Your task to perform on an android device: stop showing notifications on the lock screen Image 0: 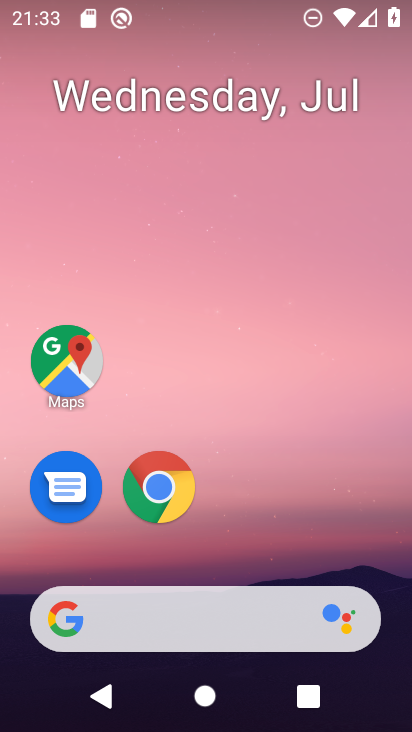
Step 0: drag from (364, 537) to (373, 131)
Your task to perform on an android device: stop showing notifications on the lock screen Image 1: 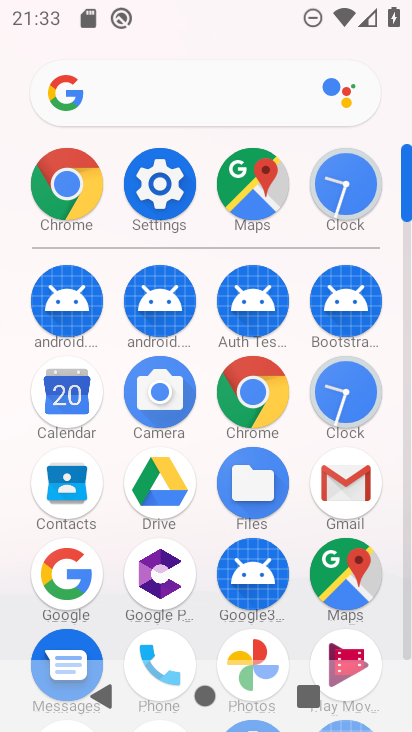
Step 1: click (164, 196)
Your task to perform on an android device: stop showing notifications on the lock screen Image 2: 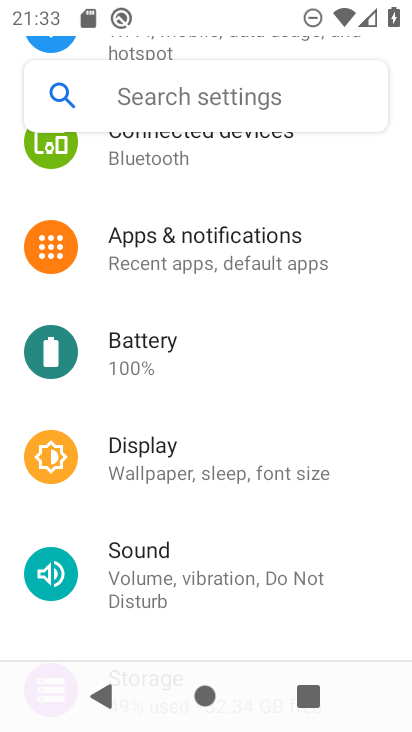
Step 2: drag from (339, 202) to (356, 291)
Your task to perform on an android device: stop showing notifications on the lock screen Image 3: 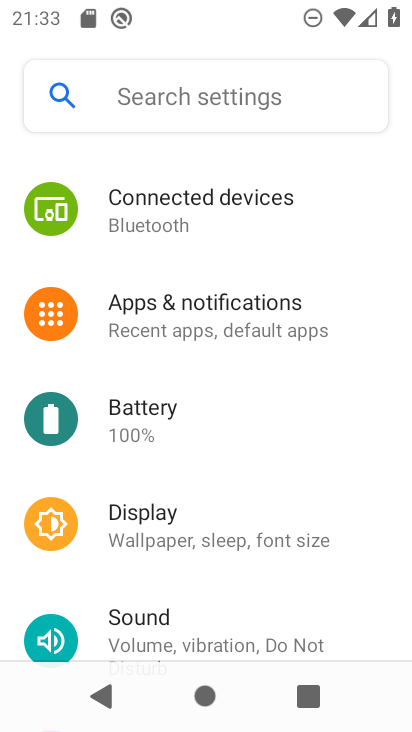
Step 3: drag from (354, 197) to (355, 283)
Your task to perform on an android device: stop showing notifications on the lock screen Image 4: 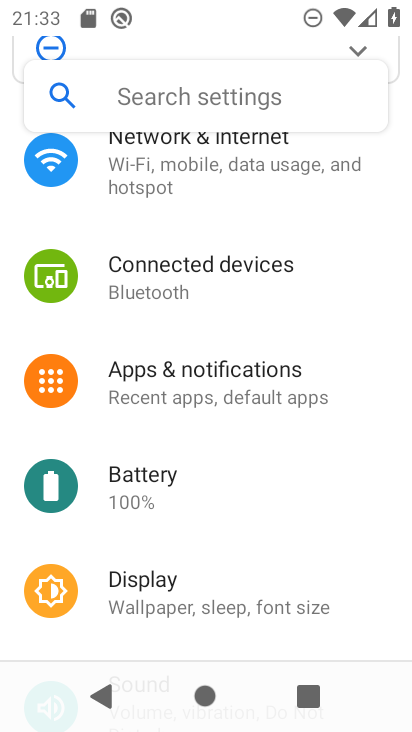
Step 4: drag from (368, 202) to (364, 283)
Your task to perform on an android device: stop showing notifications on the lock screen Image 5: 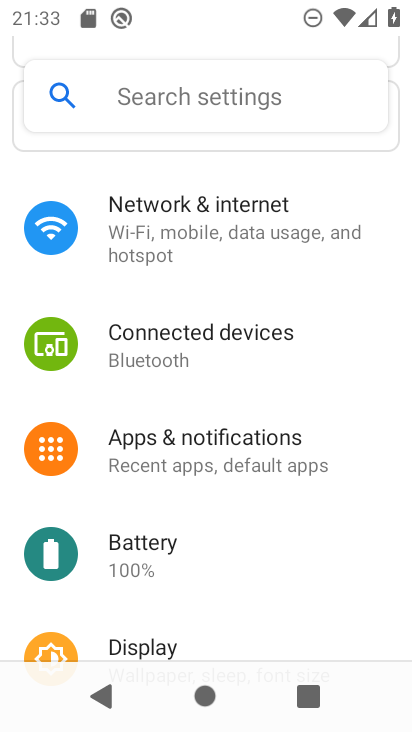
Step 5: drag from (372, 190) to (369, 316)
Your task to perform on an android device: stop showing notifications on the lock screen Image 6: 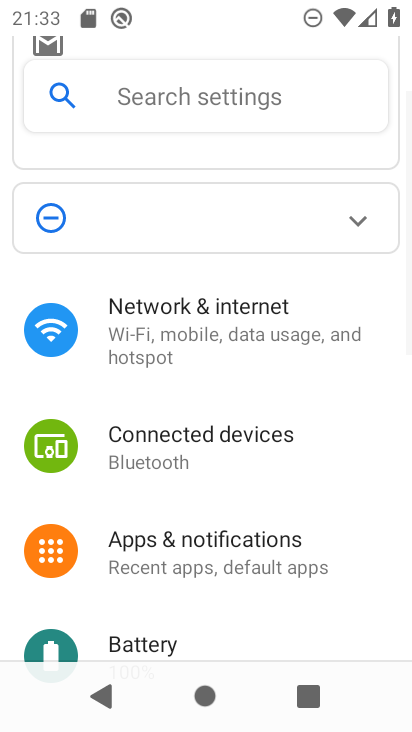
Step 6: drag from (342, 456) to (340, 386)
Your task to perform on an android device: stop showing notifications on the lock screen Image 7: 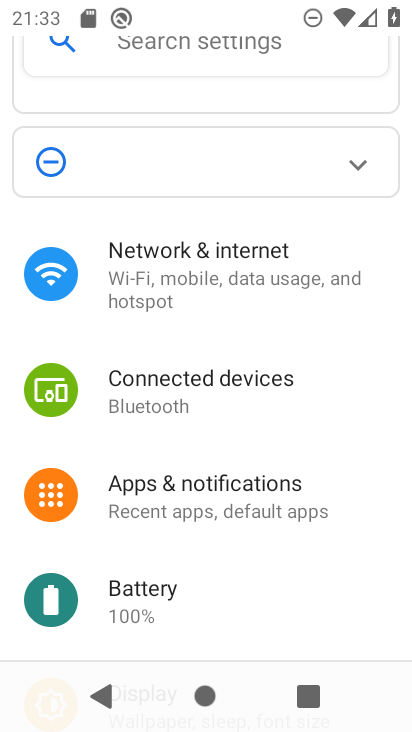
Step 7: drag from (344, 453) to (343, 385)
Your task to perform on an android device: stop showing notifications on the lock screen Image 8: 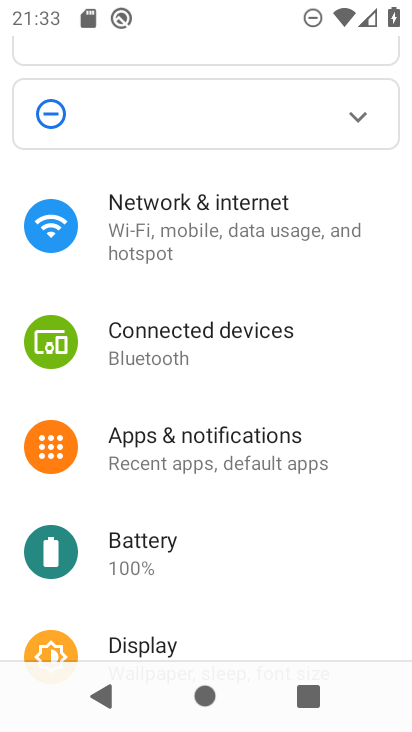
Step 8: drag from (349, 483) to (357, 381)
Your task to perform on an android device: stop showing notifications on the lock screen Image 9: 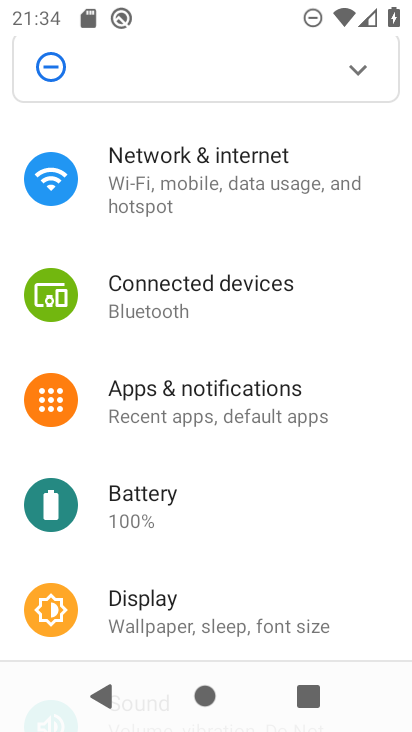
Step 9: drag from (347, 475) to (347, 380)
Your task to perform on an android device: stop showing notifications on the lock screen Image 10: 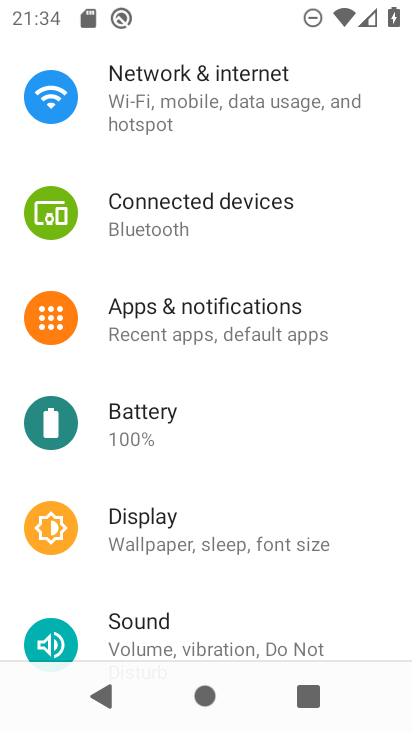
Step 10: drag from (346, 451) to (343, 375)
Your task to perform on an android device: stop showing notifications on the lock screen Image 11: 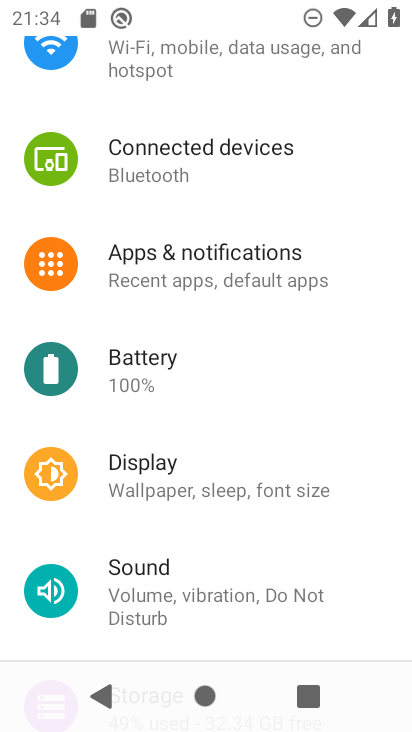
Step 11: click (326, 280)
Your task to perform on an android device: stop showing notifications on the lock screen Image 12: 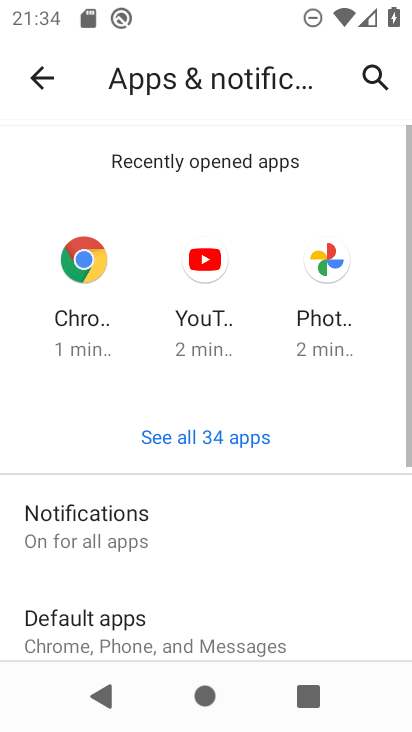
Step 12: click (253, 526)
Your task to perform on an android device: stop showing notifications on the lock screen Image 13: 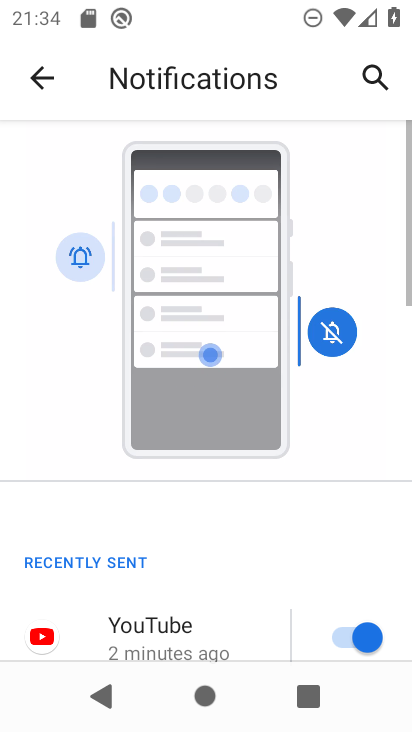
Step 13: drag from (324, 509) to (326, 410)
Your task to perform on an android device: stop showing notifications on the lock screen Image 14: 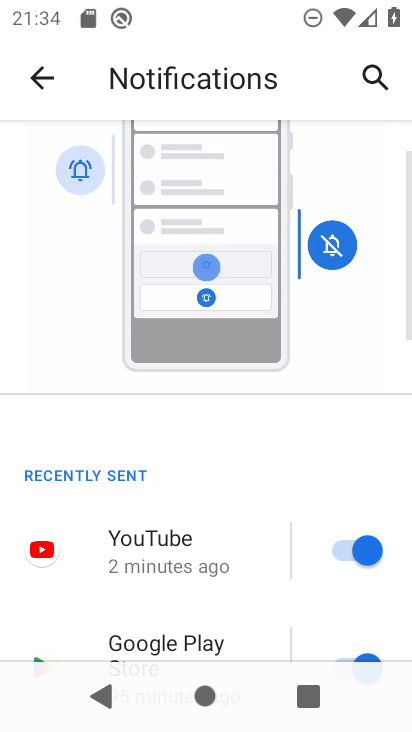
Step 14: drag from (252, 521) to (251, 425)
Your task to perform on an android device: stop showing notifications on the lock screen Image 15: 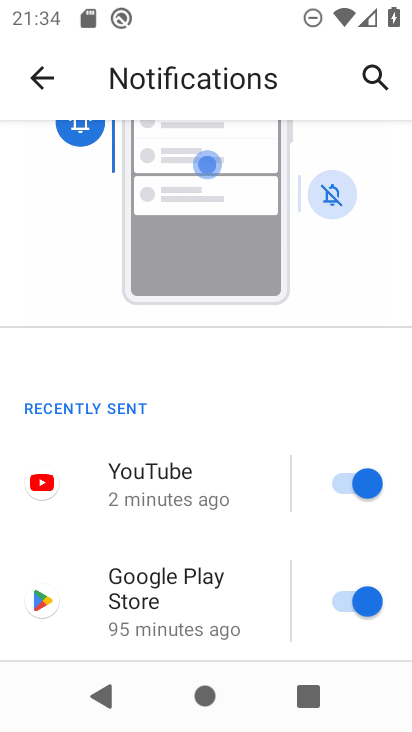
Step 15: drag from (253, 548) to (252, 400)
Your task to perform on an android device: stop showing notifications on the lock screen Image 16: 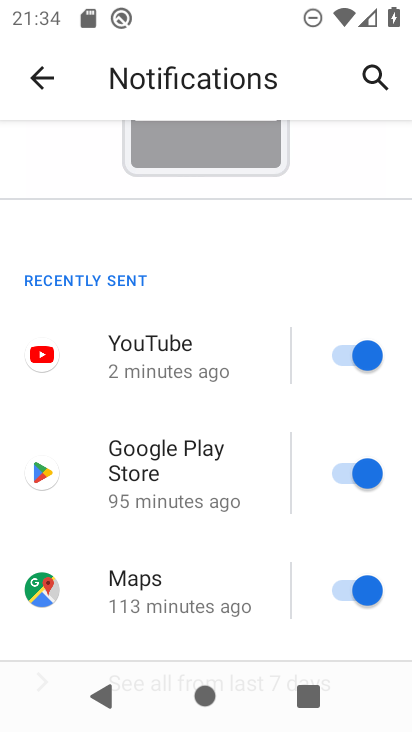
Step 16: drag from (233, 573) to (238, 397)
Your task to perform on an android device: stop showing notifications on the lock screen Image 17: 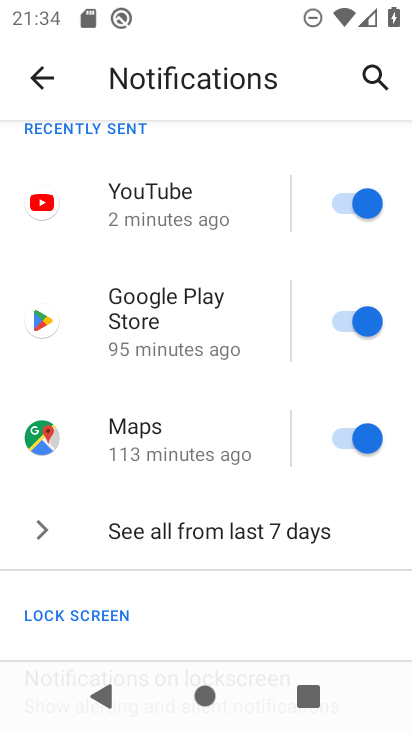
Step 17: drag from (231, 573) to (250, 379)
Your task to perform on an android device: stop showing notifications on the lock screen Image 18: 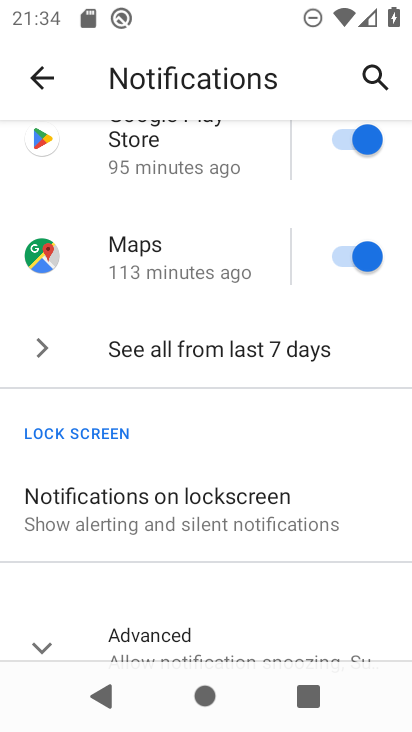
Step 18: click (234, 527)
Your task to perform on an android device: stop showing notifications on the lock screen Image 19: 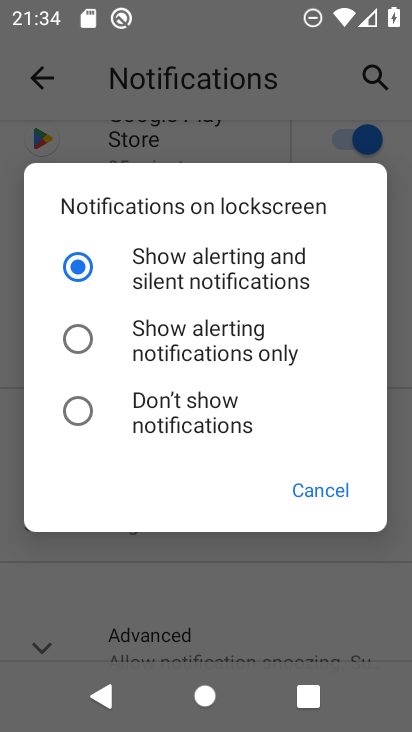
Step 19: click (188, 419)
Your task to perform on an android device: stop showing notifications on the lock screen Image 20: 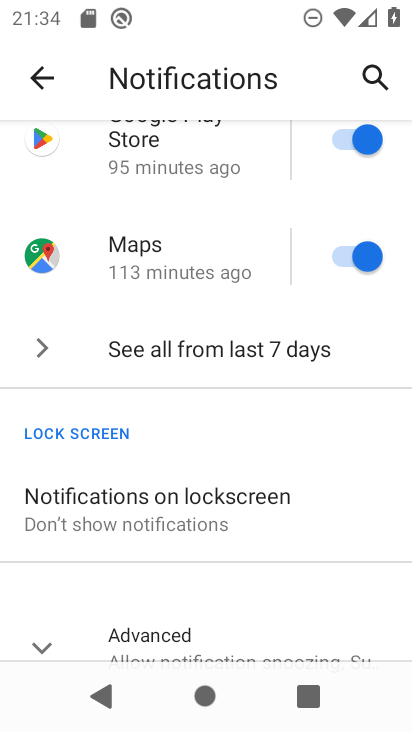
Step 20: task complete